Your task to perform on an android device: check data usage Image 0: 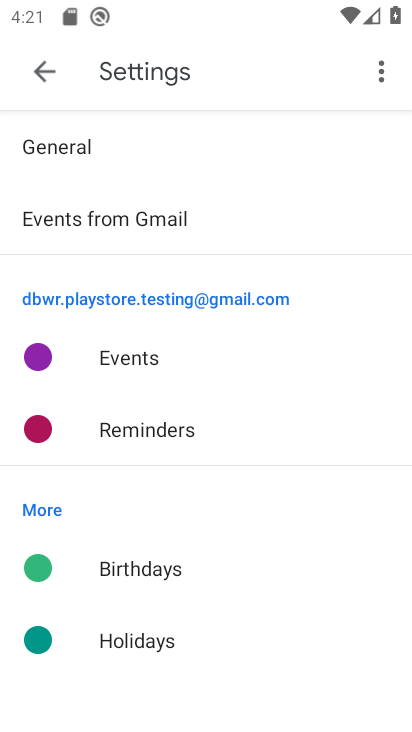
Step 0: press home button
Your task to perform on an android device: check data usage Image 1: 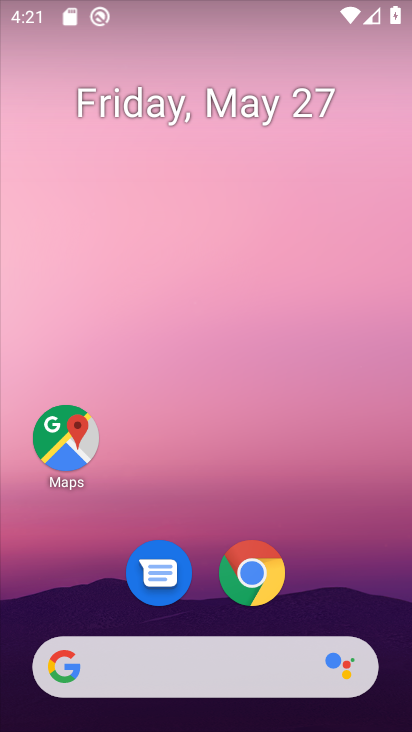
Step 1: drag from (318, 514) to (257, 2)
Your task to perform on an android device: check data usage Image 2: 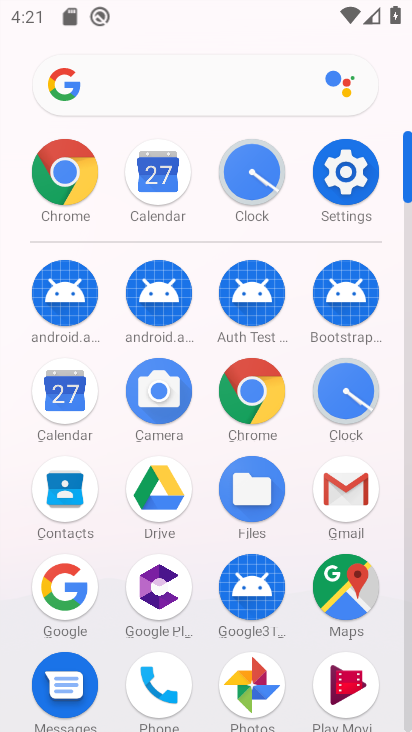
Step 2: click (345, 171)
Your task to perform on an android device: check data usage Image 3: 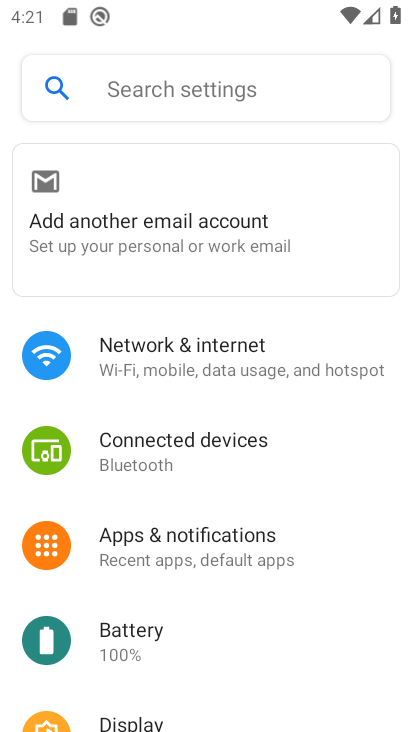
Step 3: click (209, 354)
Your task to perform on an android device: check data usage Image 4: 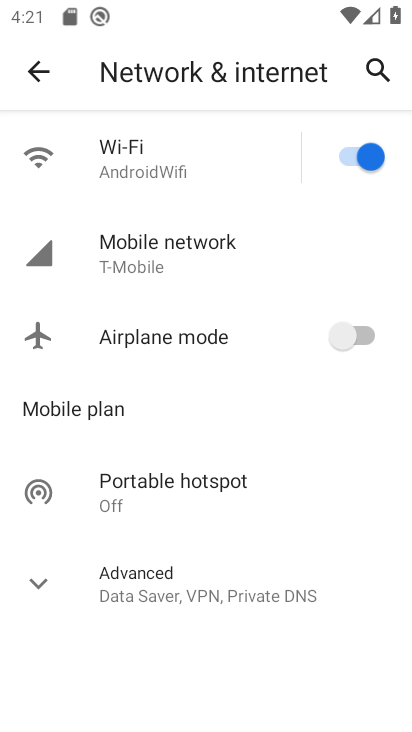
Step 4: click (220, 241)
Your task to perform on an android device: check data usage Image 5: 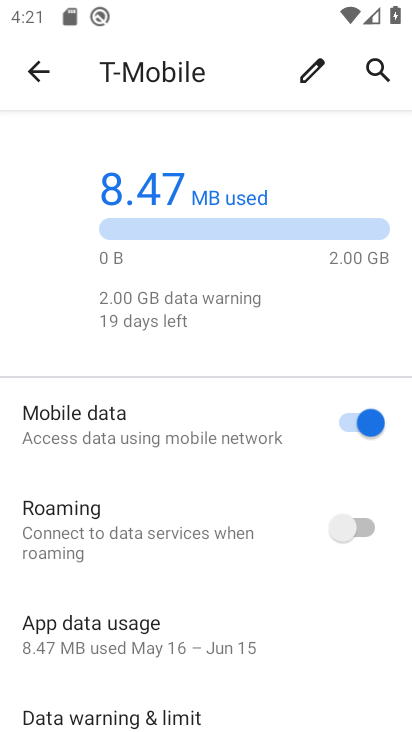
Step 5: task complete